Your task to perform on an android device: turn on the 24-hour format for clock Image 0: 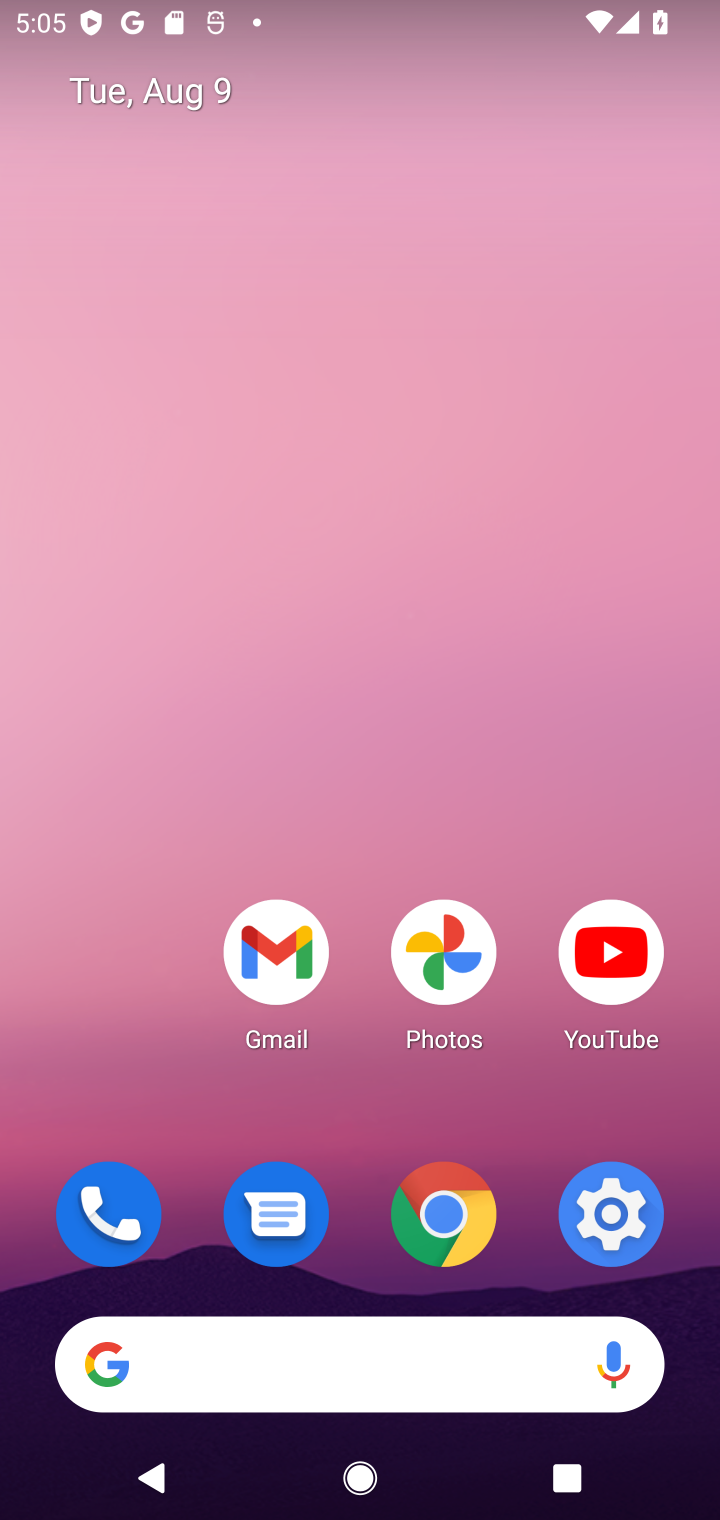
Step 0: press home button
Your task to perform on an android device: turn on the 24-hour format for clock Image 1: 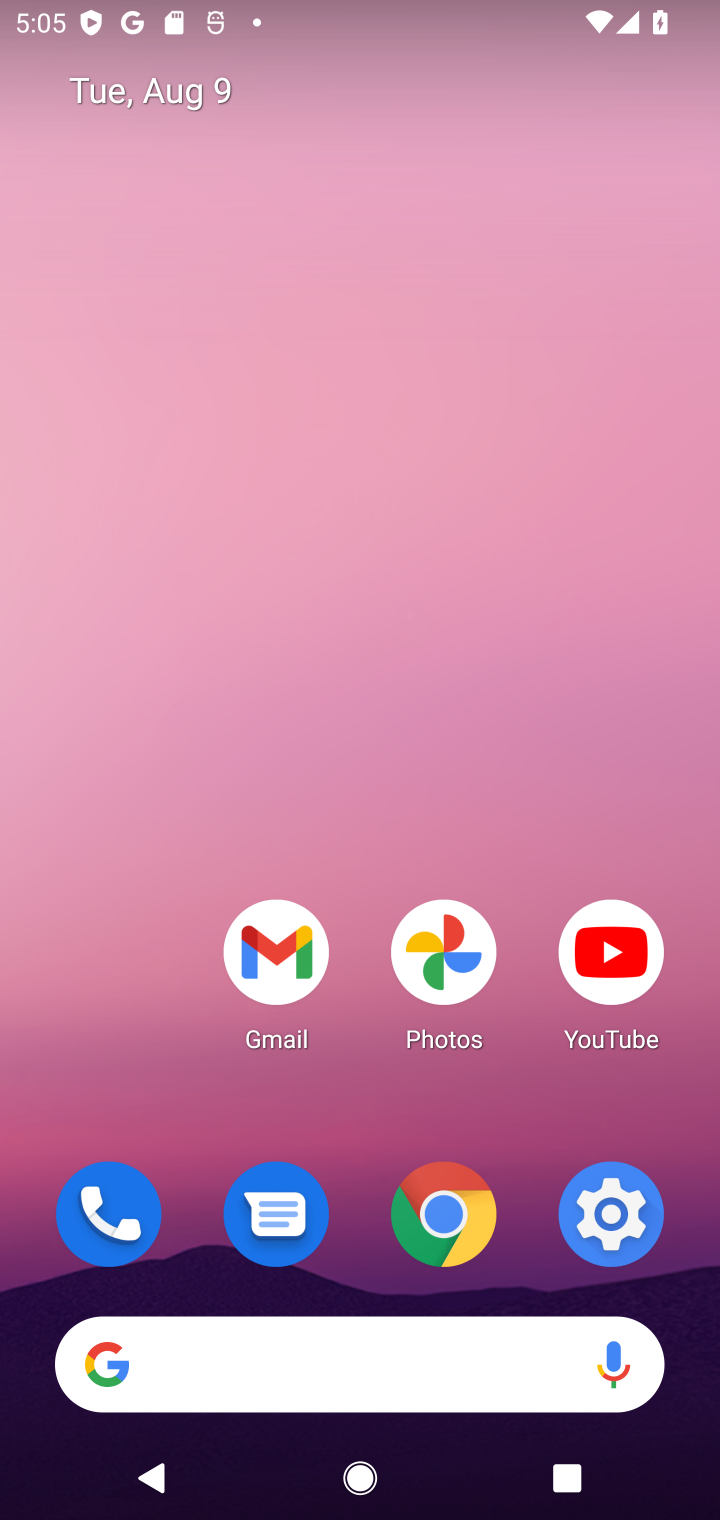
Step 1: drag from (443, 1412) to (384, 487)
Your task to perform on an android device: turn on the 24-hour format for clock Image 2: 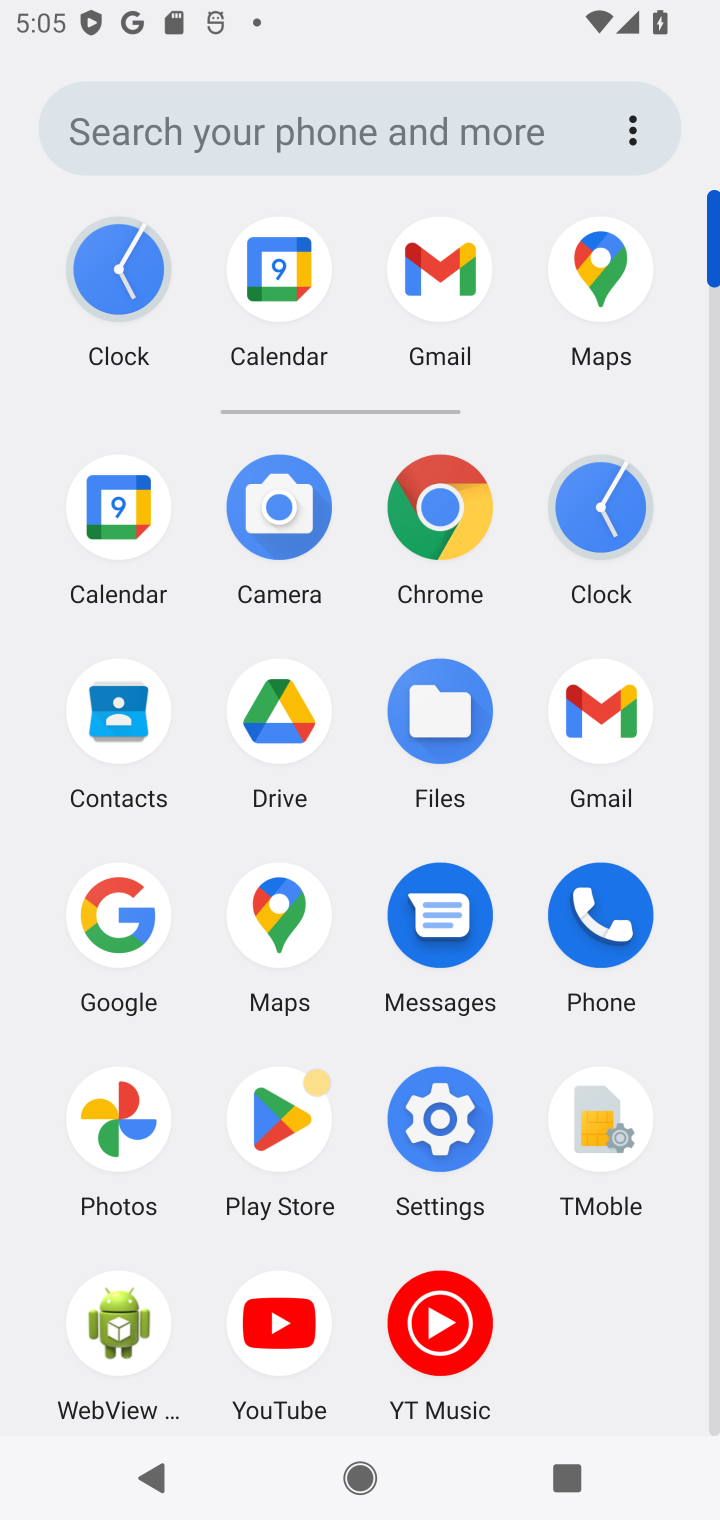
Step 2: click (571, 550)
Your task to perform on an android device: turn on the 24-hour format for clock Image 3: 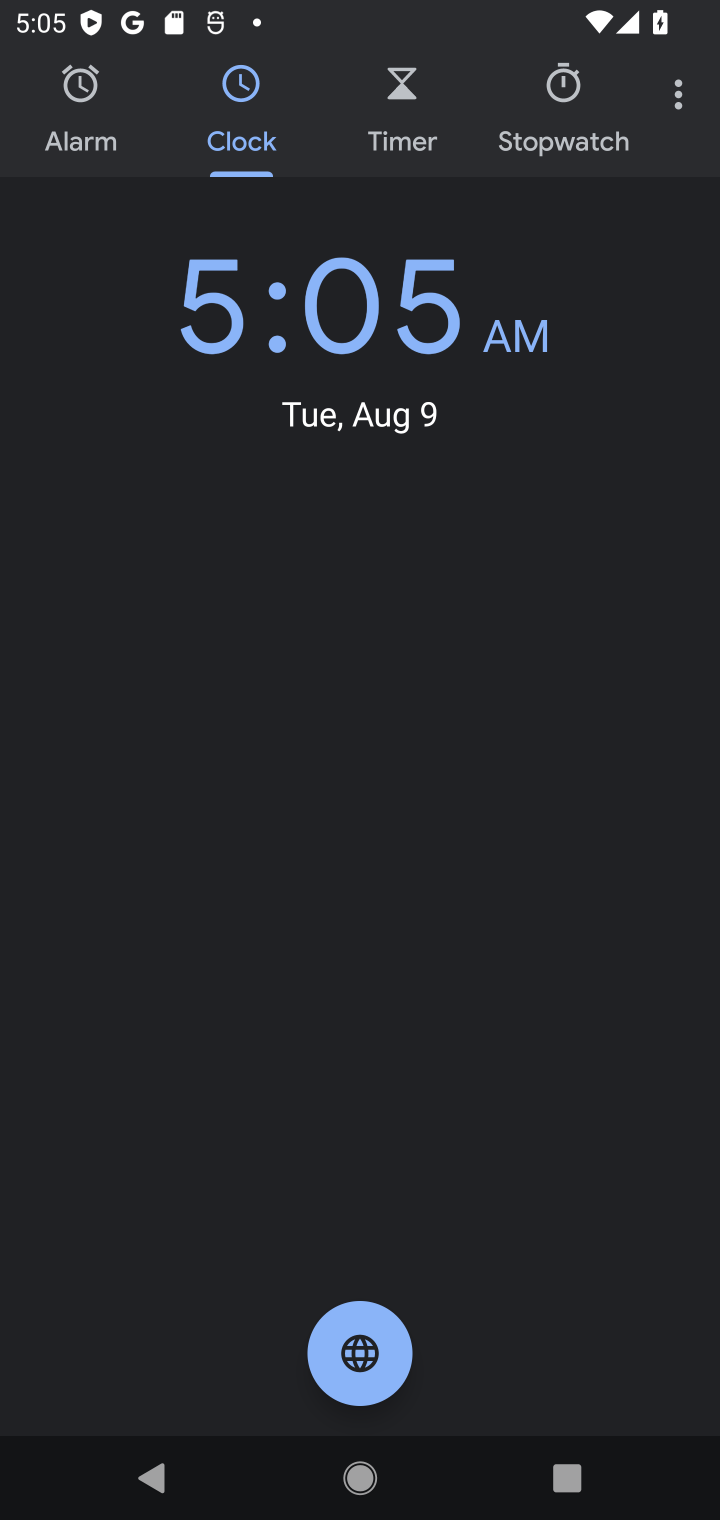
Step 3: click (674, 106)
Your task to perform on an android device: turn on the 24-hour format for clock Image 4: 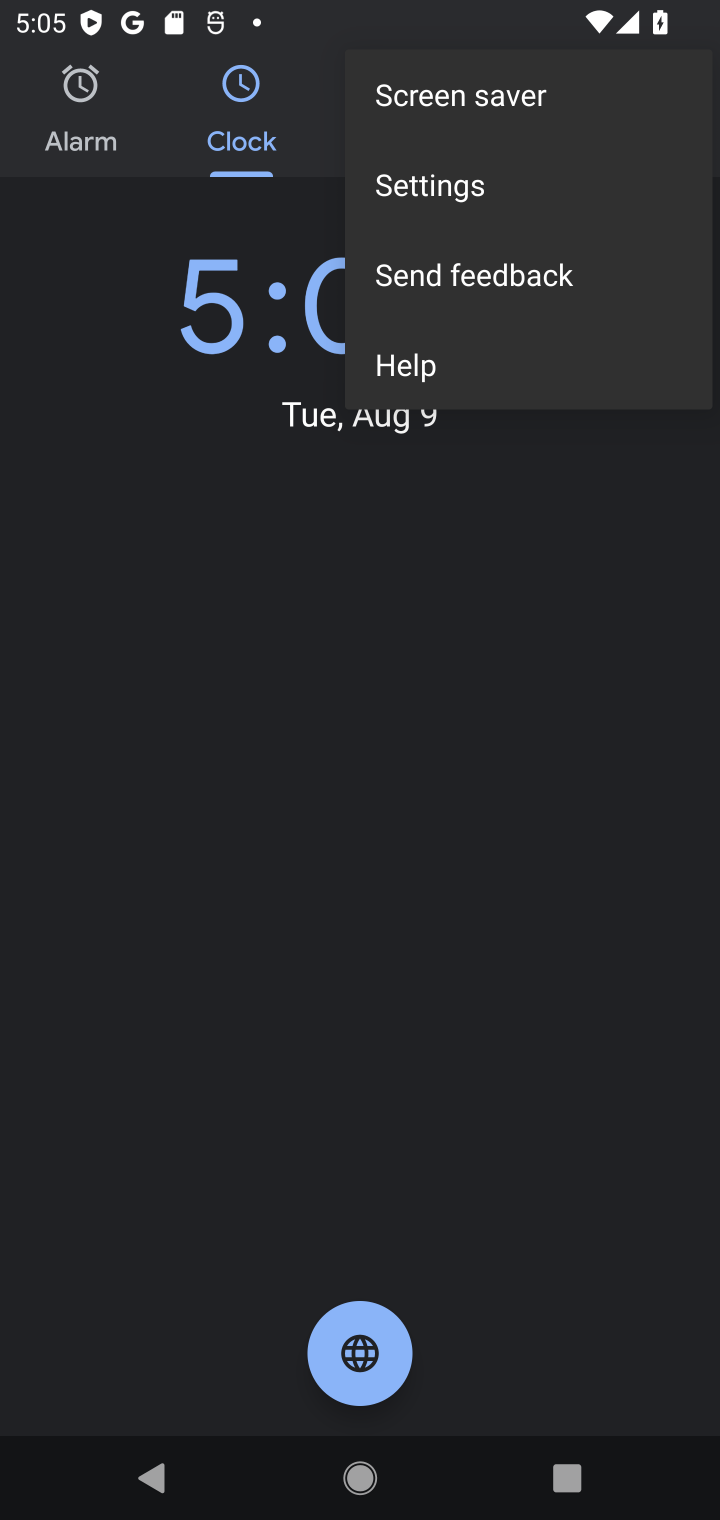
Step 4: click (480, 193)
Your task to perform on an android device: turn on the 24-hour format for clock Image 5: 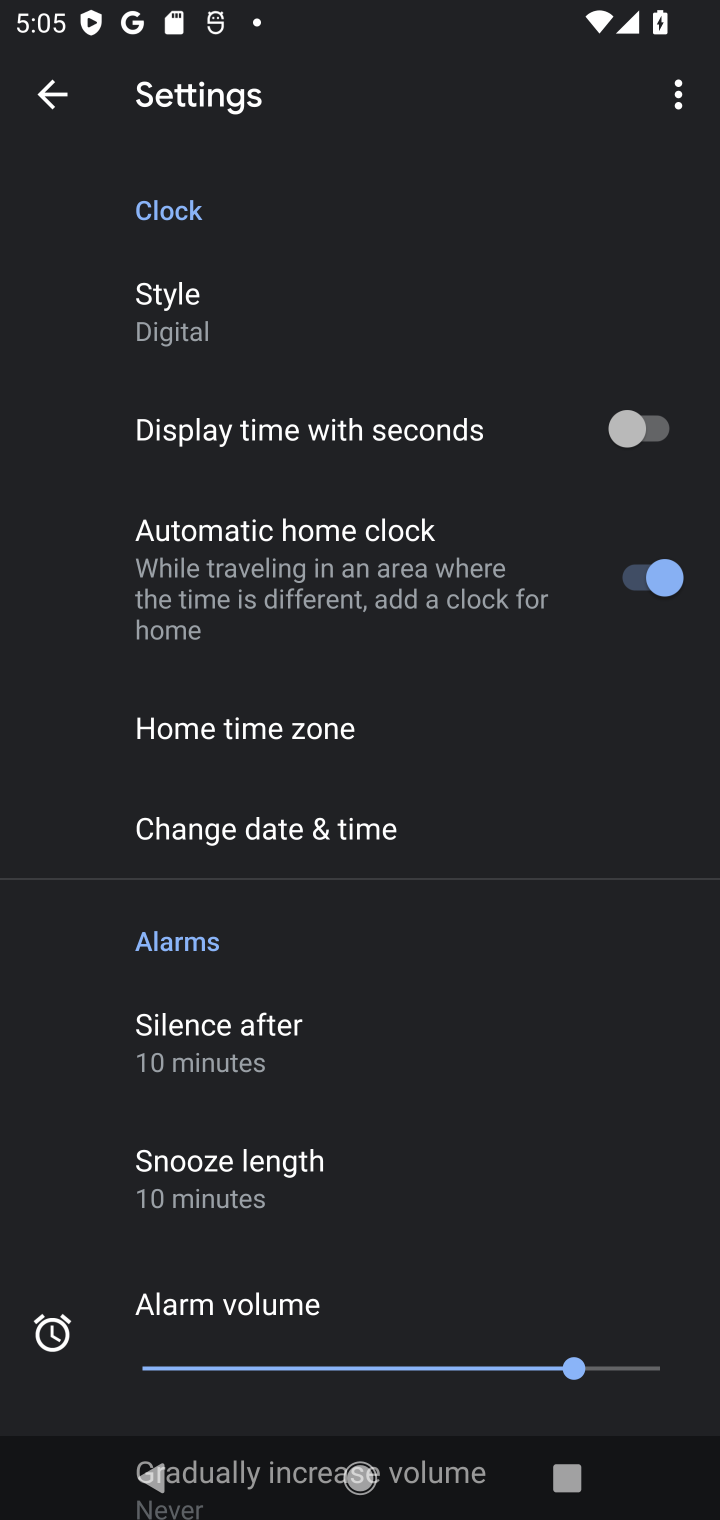
Step 5: click (280, 837)
Your task to perform on an android device: turn on the 24-hour format for clock Image 6: 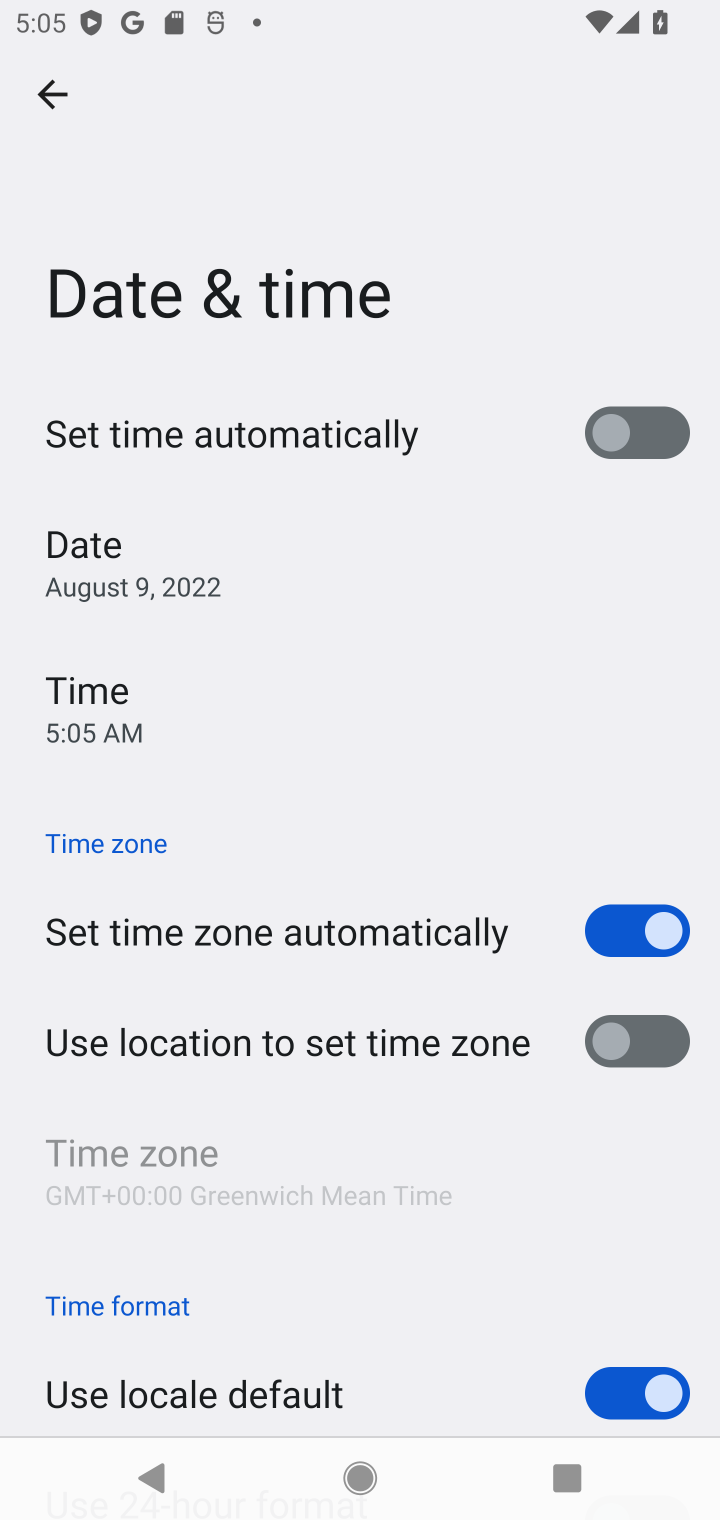
Step 6: click (635, 1022)
Your task to perform on an android device: turn on the 24-hour format for clock Image 7: 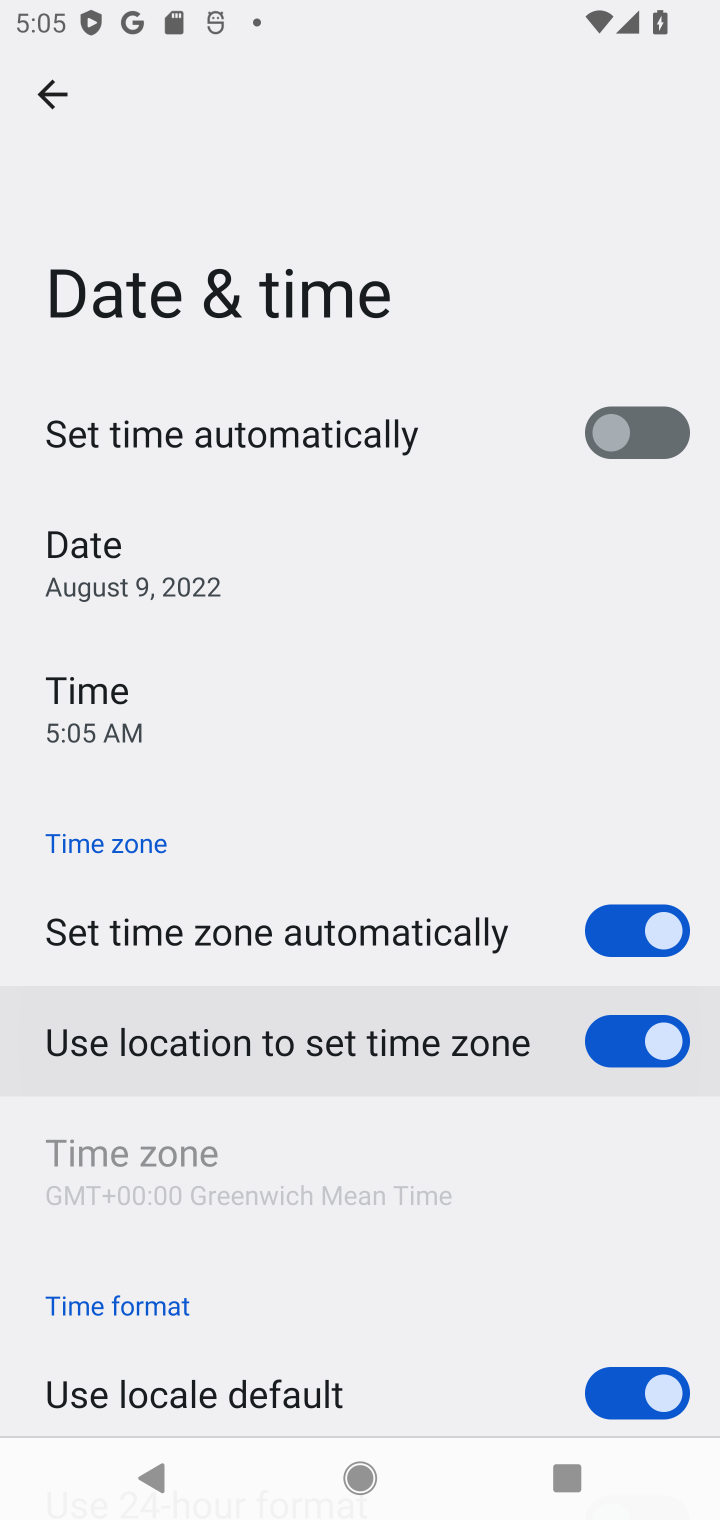
Step 7: click (633, 917)
Your task to perform on an android device: turn on the 24-hour format for clock Image 8: 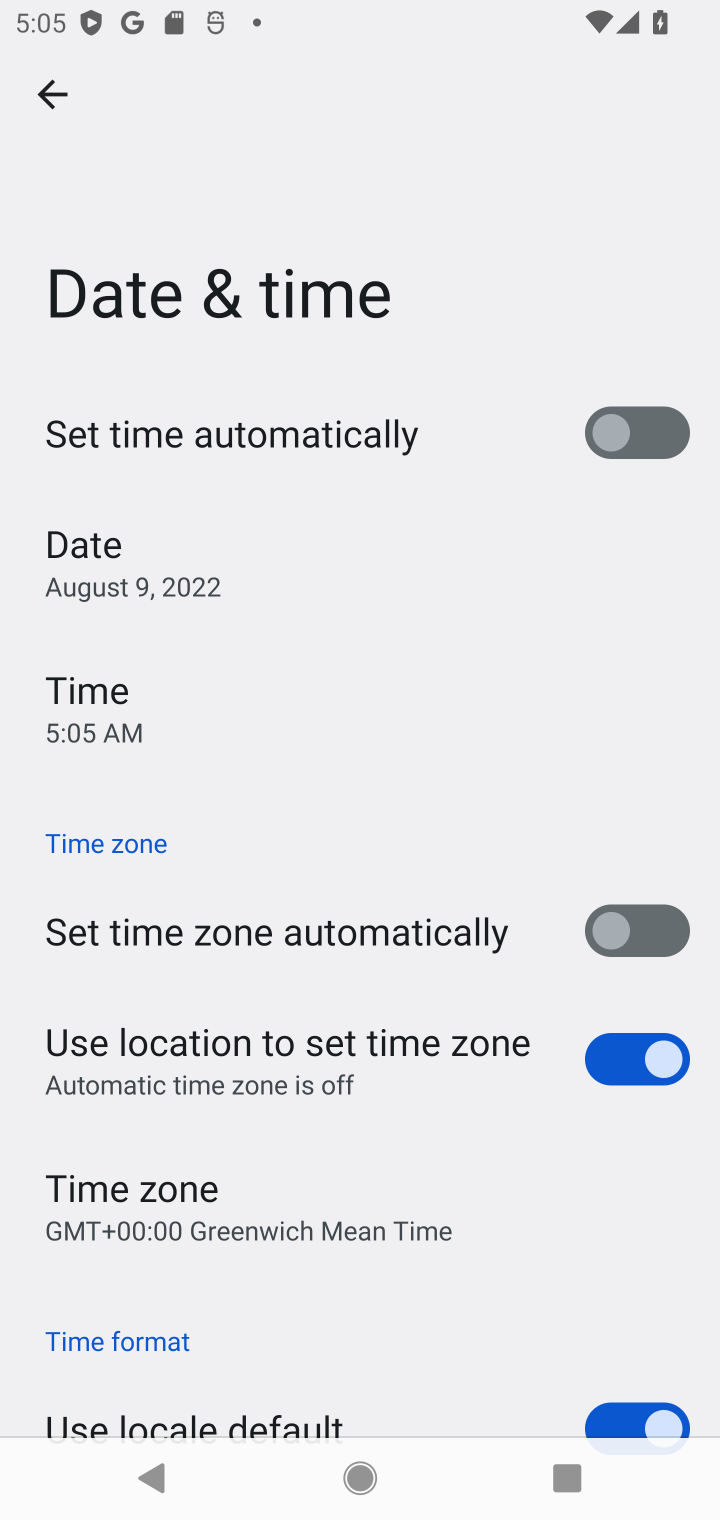
Step 8: drag from (527, 1282) to (539, 809)
Your task to perform on an android device: turn on the 24-hour format for clock Image 9: 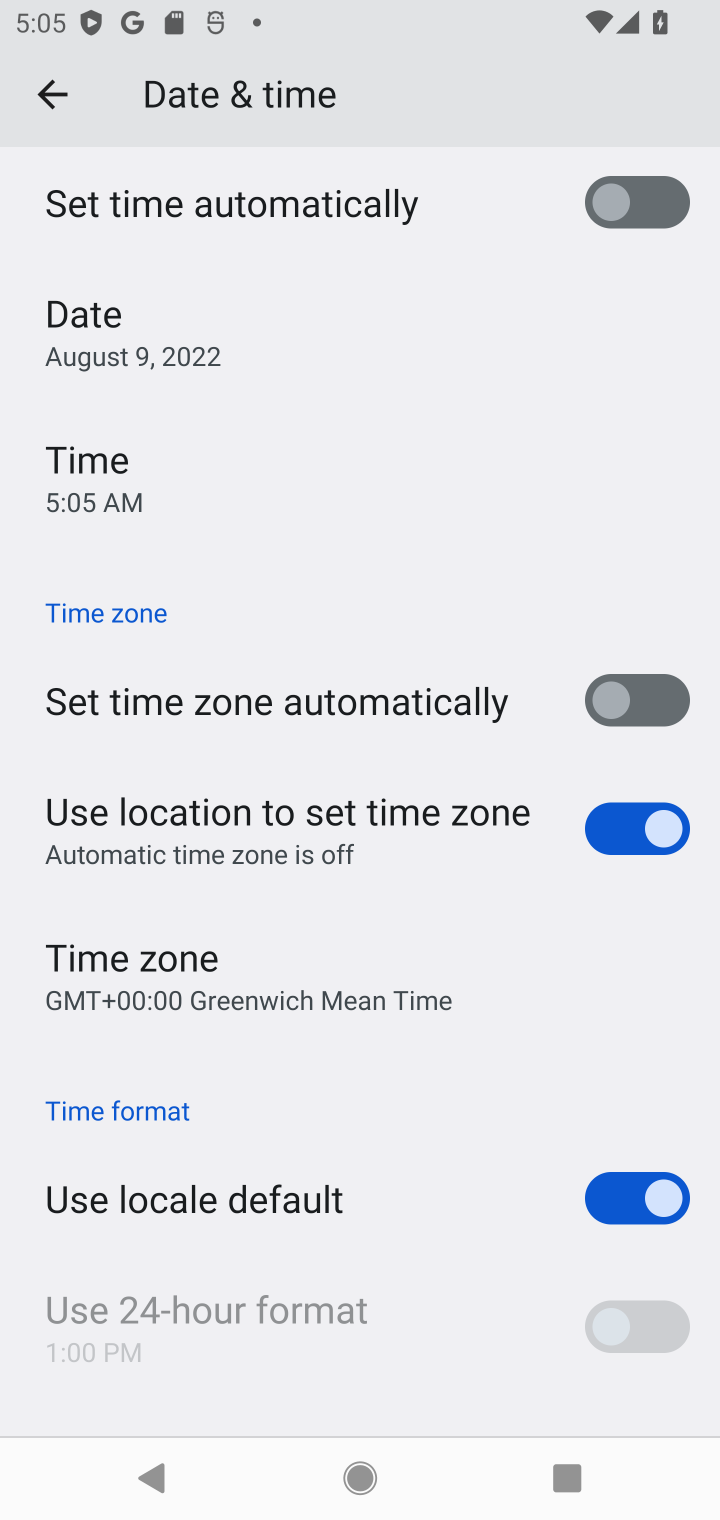
Step 9: click (598, 1204)
Your task to perform on an android device: turn on the 24-hour format for clock Image 10: 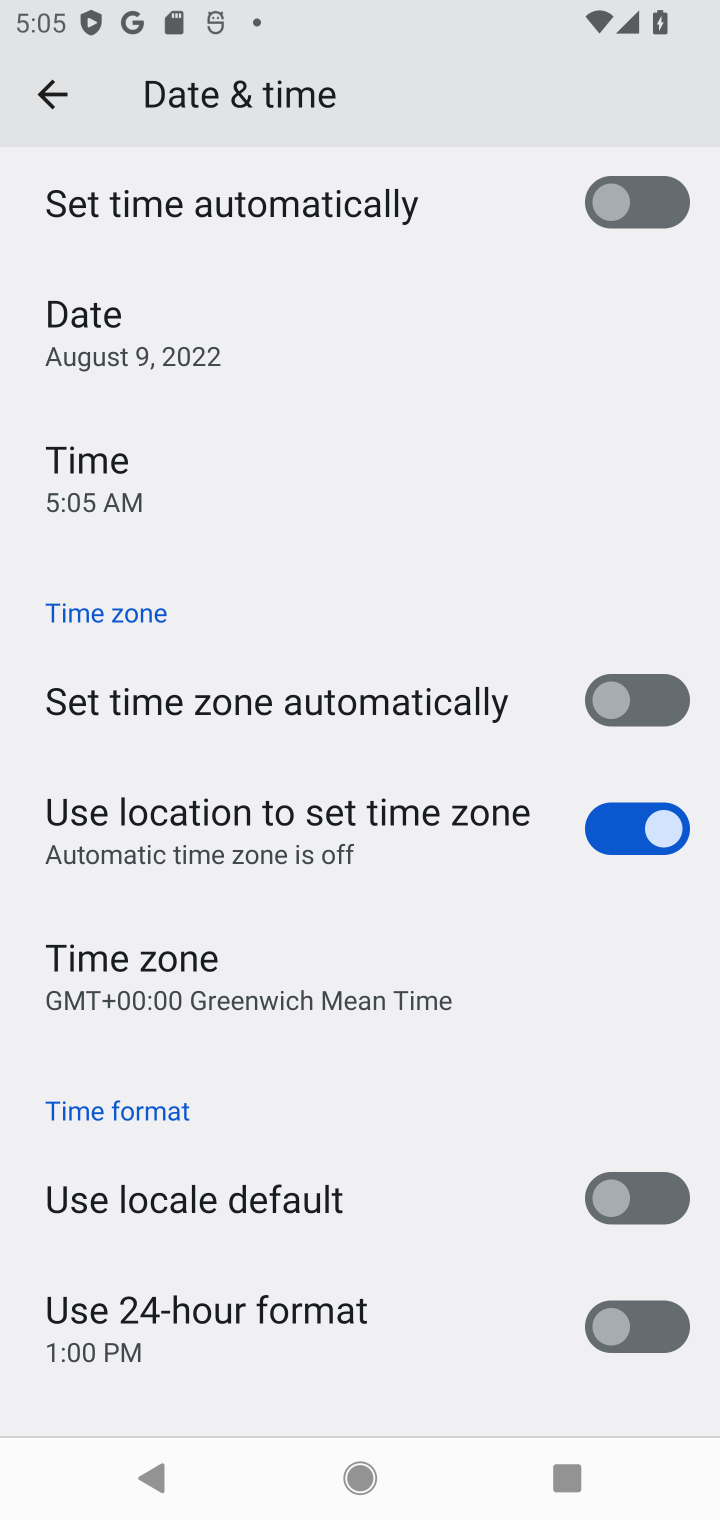
Step 10: click (644, 1315)
Your task to perform on an android device: turn on the 24-hour format for clock Image 11: 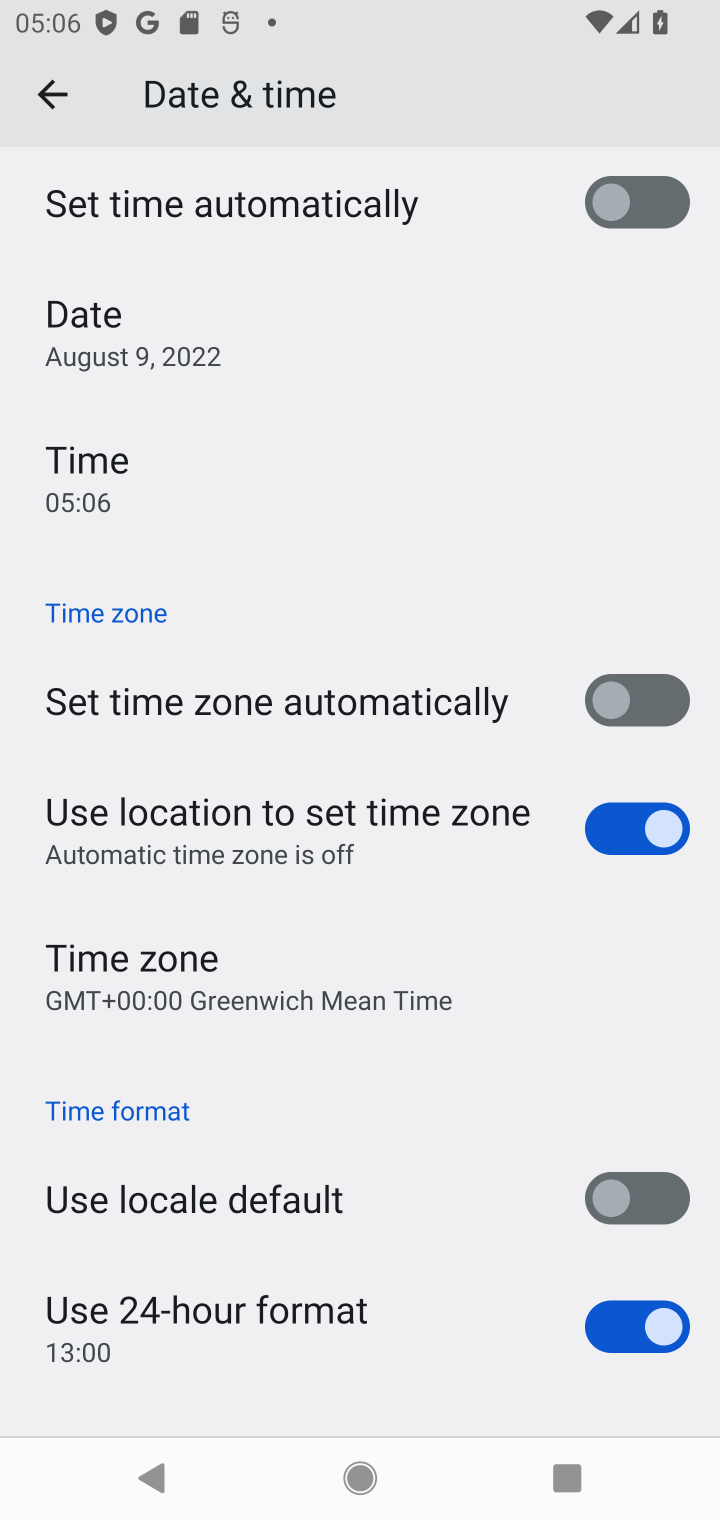
Step 11: task complete